Your task to perform on an android device: allow notifications from all sites in the chrome app Image 0: 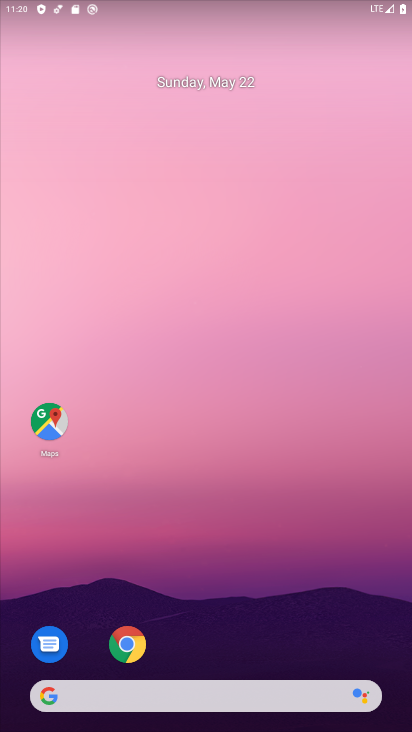
Step 0: click (132, 647)
Your task to perform on an android device: allow notifications from all sites in the chrome app Image 1: 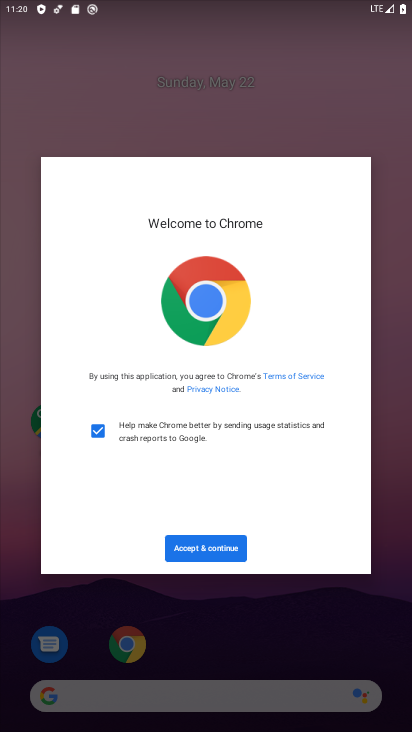
Step 1: click (223, 549)
Your task to perform on an android device: allow notifications from all sites in the chrome app Image 2: 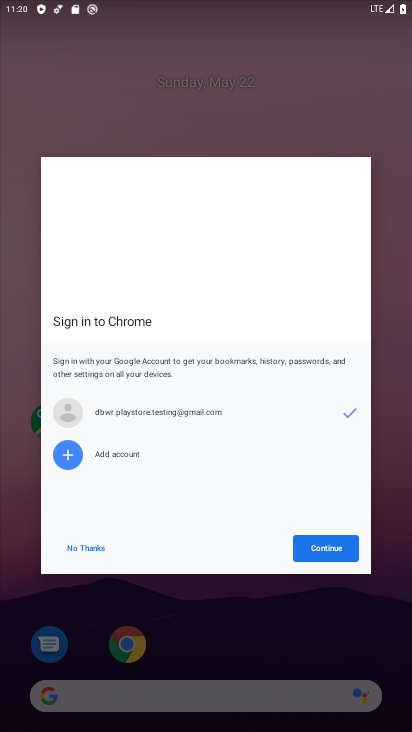
Step 2: click (340, 549)
Your task to perform on an android device: allow notifications from all sites in the chrome app Image 3: 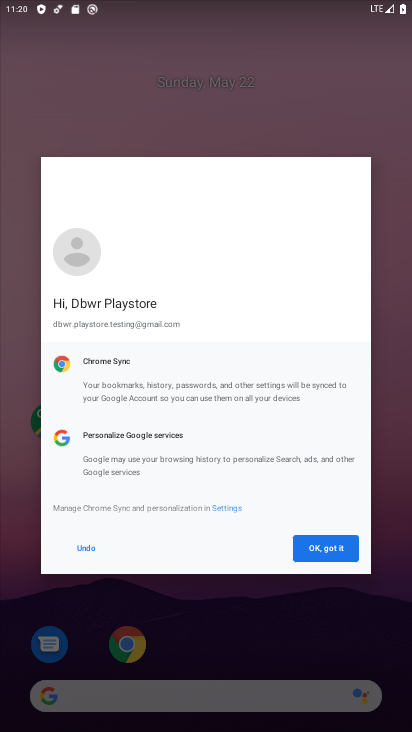
Step 3: click (340, 549)
Your task to perform on an android device: allow notifications from all sites in the chrome app Image 4: 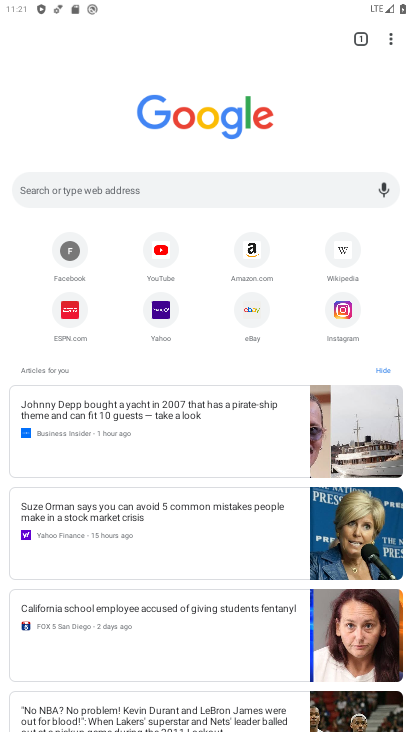
Step 4: click (397, 39)
Your task to perform on an android device: allow notifications from all sites in the chrome app Image 5: 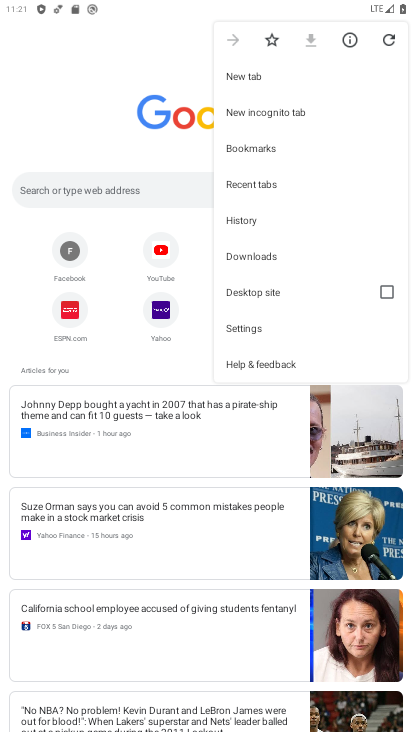
Step 5: click (244, 322)
Your task to perform on an android device: allow notifications from all sites in the chrome app Image 6: 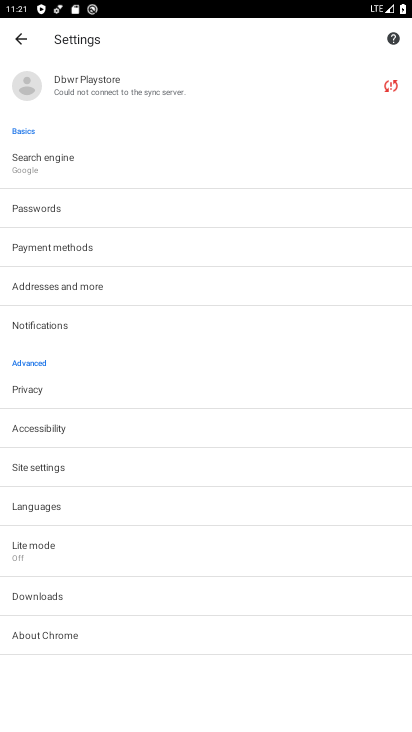
Step 6: click (74, 328)
Your task to perform on an android device: allow notifications from all sites in the chrome app Image 7: 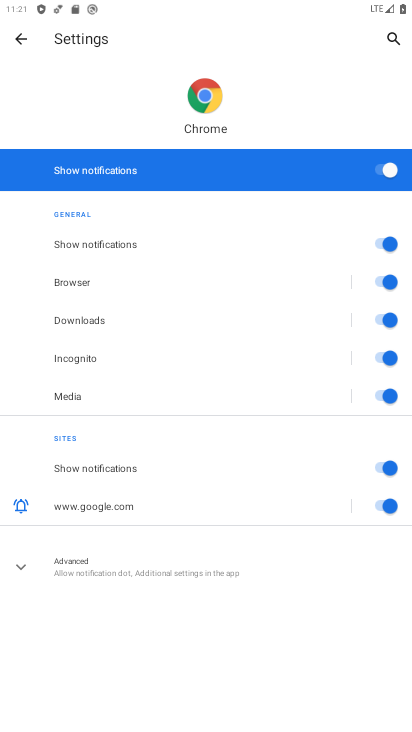
Step 7: task complete